Your task to perform on an android device: check storage Image 0: 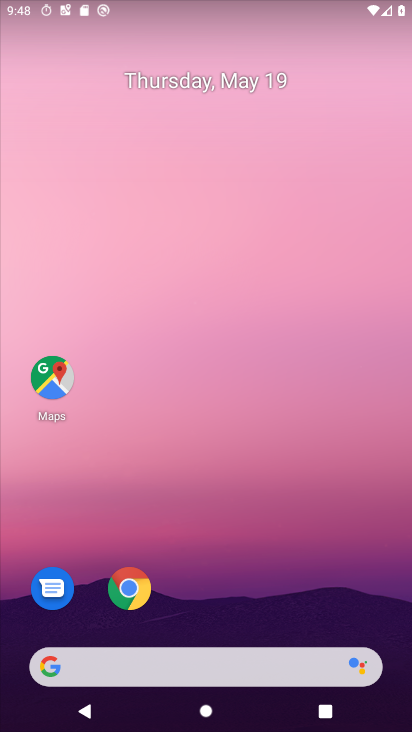
Step 0: drag from (155, 673) to (290, 87)
Your task to perform on an android device: check storage Image 1: 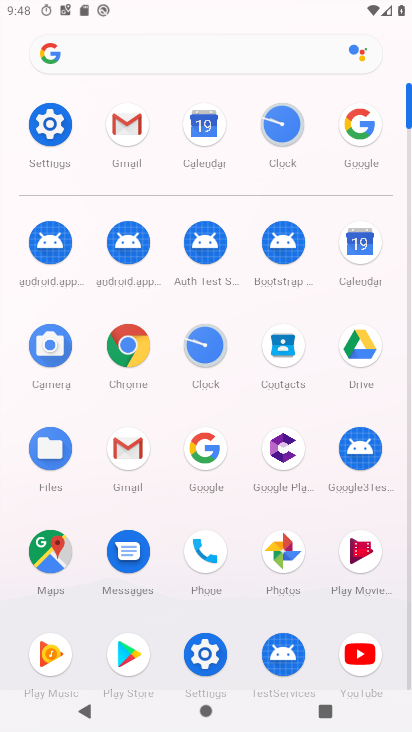
Step 1: click (63, 125)
Your task to perform on an android device: check storage Image 2: 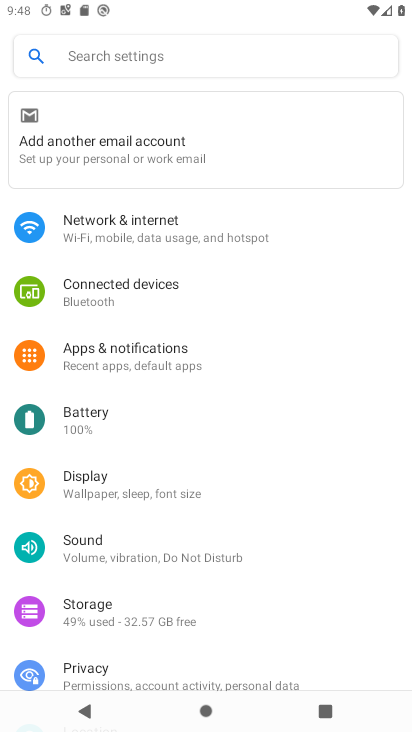
Step 2: click (128, 617)
Your task to perform on an android device: check storage Image 3: 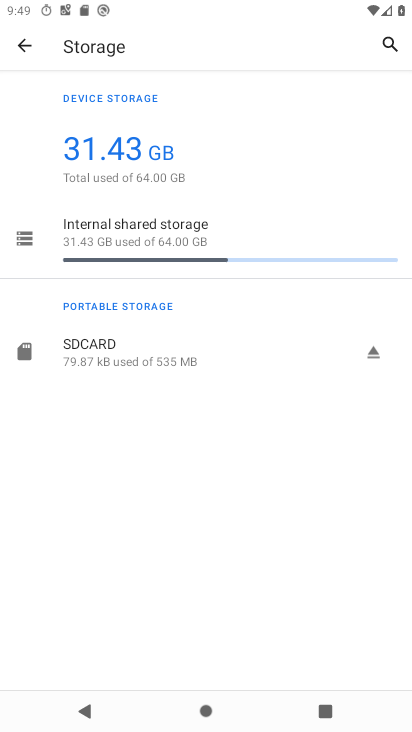
Step 3: task complete